Your task to perform on an android device: Go to accessibility settings Image 0: 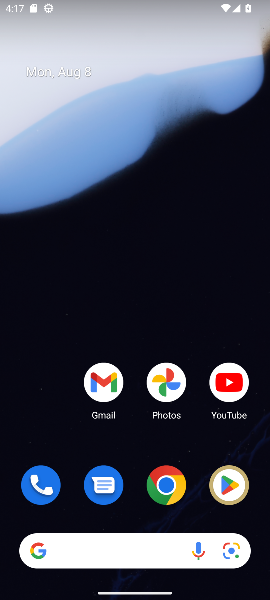
Step 0: drag from (116, 369) to (101, 259)
Your task to perform on an android device: Go to accessibility settings Image 1: 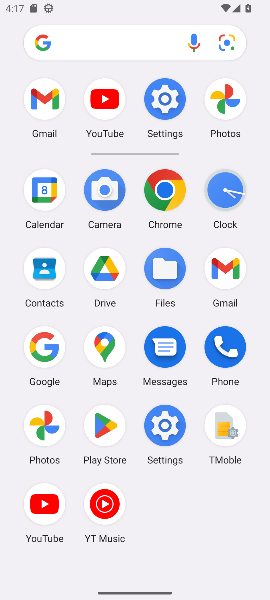
Step 1: click (167, 430)
Your task to perform on an android device: Go to accessibility settings Image 2: 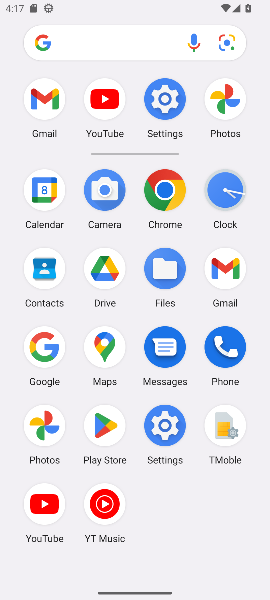
Step 2: click (167, 430)
Your task to perform on an android device: Go to accessibility settings Image 3: 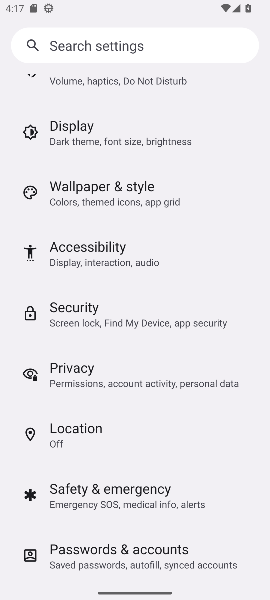
Step 3: drag from (116, 384) to (122, 61)
Your task to perform on an android device: Go to accessibility settings Image 4: 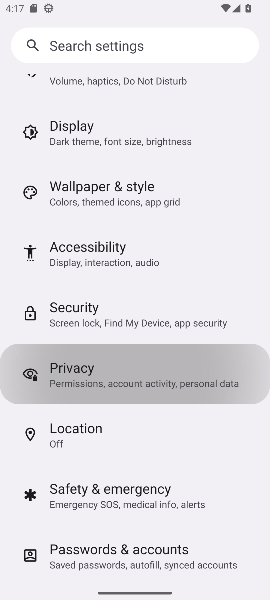
Step 4: drag from (135, 467) to (86, 221)
Your task to perform on an android device: Go to accessibility settings Image 5: 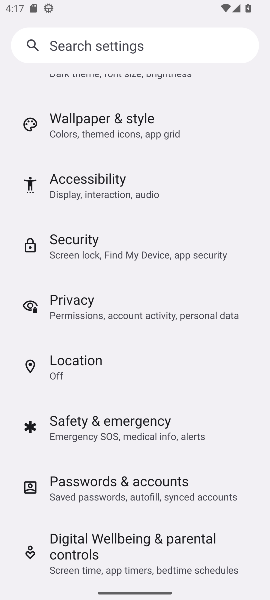
Step 5: click (79, 175)
Your task to perform on an android device: Go to accessibility settings Image 6: 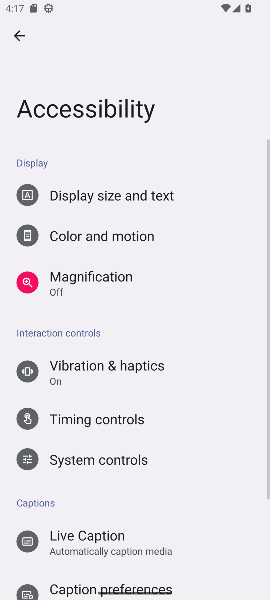
Step 6: task complete